Your task to perform on an android device: turn on notifications settings in the gmail app Image 0: 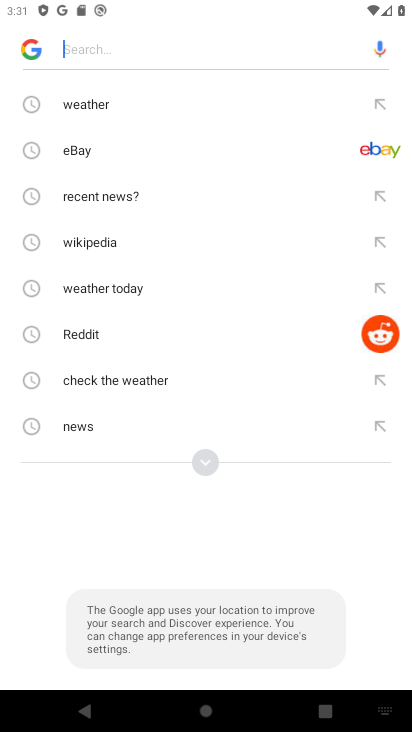
Step 0: press home button
Your task to perform on an android device: turn on notifications settings in the gmail app Image 1: 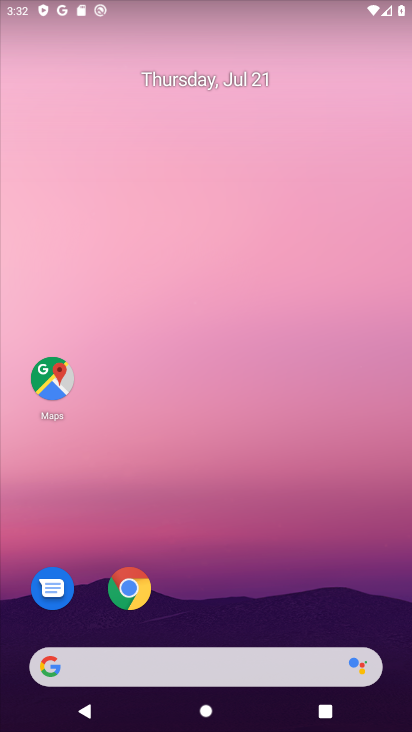
Step 1: drag from (244, 724) to (207, 203)
Your task to perform on an android device: turn on notifications settings in the gmail app Image 2: 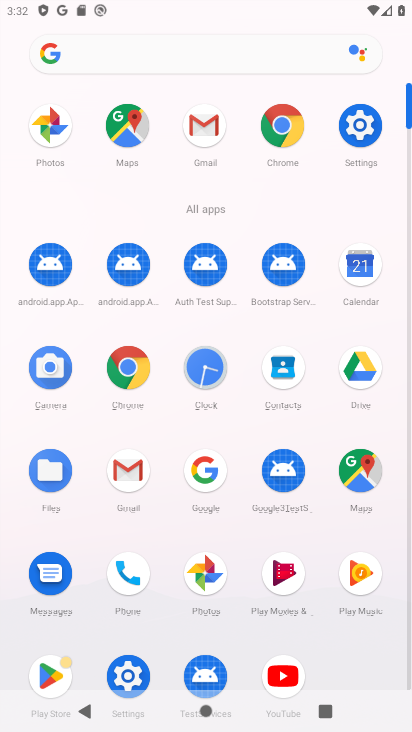
Step 2: click (139, 468)
Your task to perform on an android device: turn on notifications settings in the gmail app Image 3: 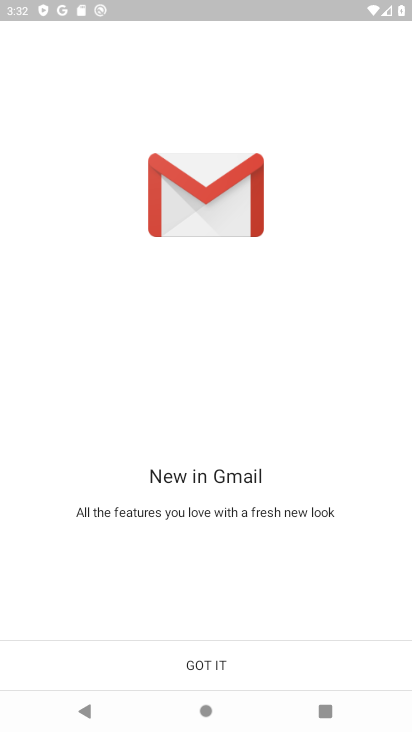
Step 3: click (215, 659)
Your task to perform on an android device: turn on notifications settings in the gmail app Image 4: 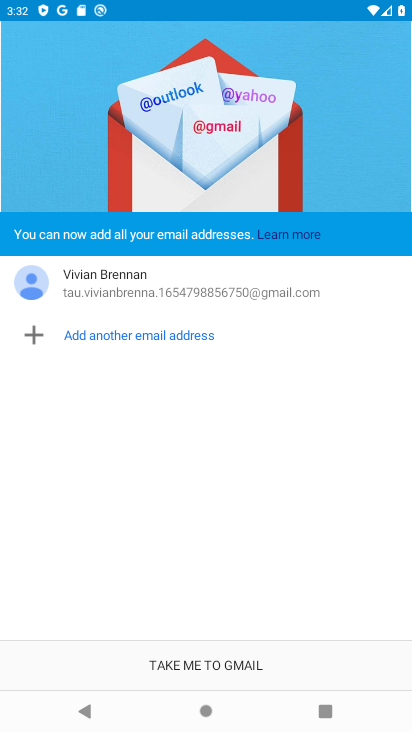
Step 4: click (215, 659)
Your task to perform on an android device: turn on notifications settings in the gmail app Image 5: 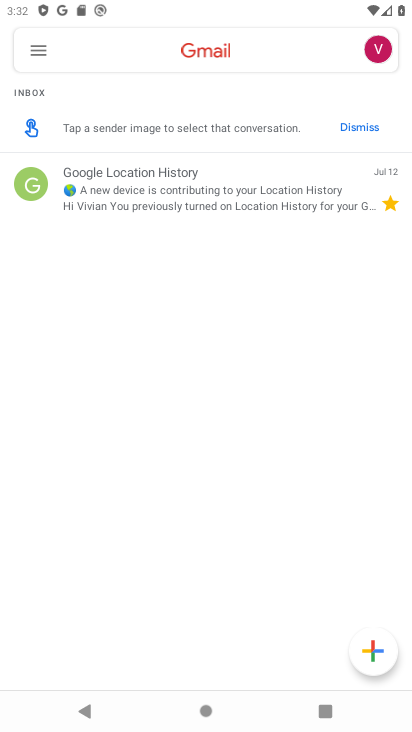
Step 5: click (41, 43)
Your task to perform on an android device: turn on notifications settings in the gmail app Image 6: 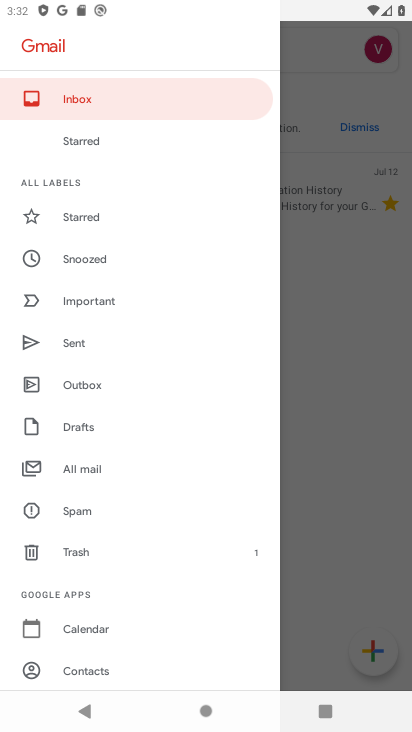
Step 6: drag from (111, 668) to (124, 428)
Your task to perform on an android device: turn on notifications settings in the gmail app Image 7: 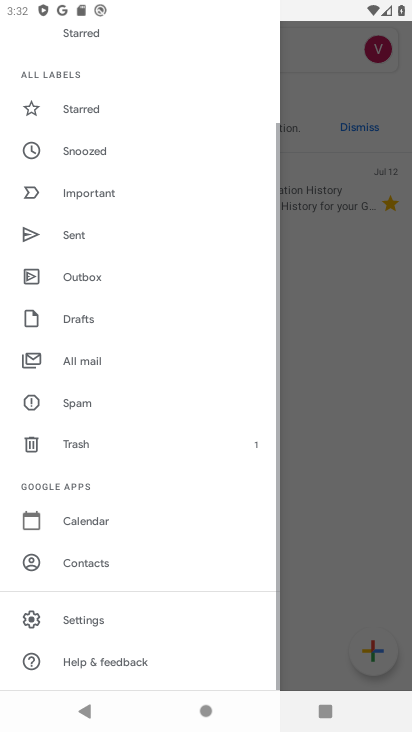
Step 7: click (83, 616)
Your task to perform on an android device: turn on notifications settings in the gmail app Image 8: 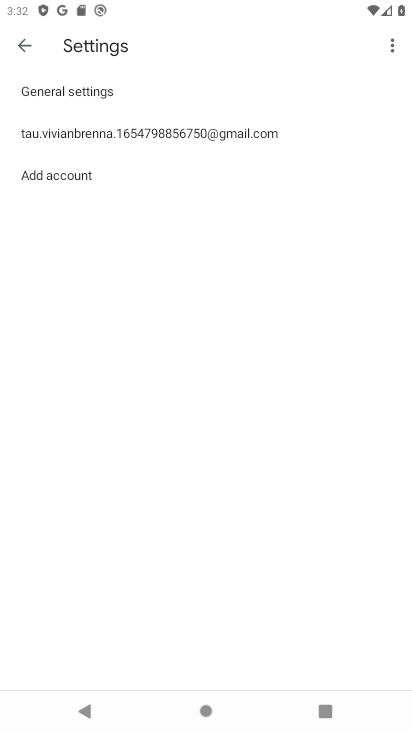
Step 8: click (113, 133)
Your task to perform on an android device: turn on notifications settings in the gmail app Image 9: 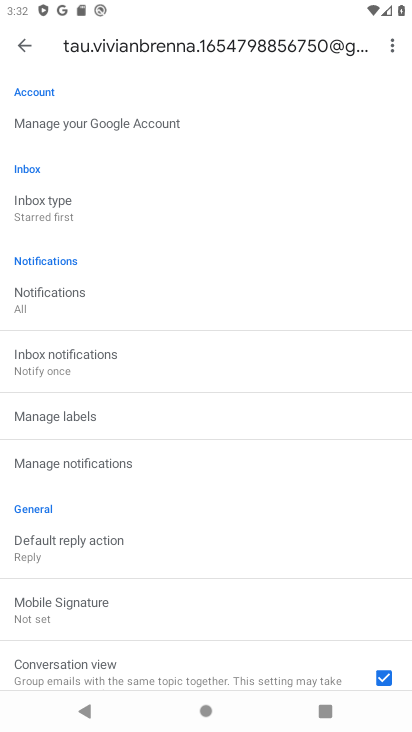
Step 9: task complete